Your task to perform on an android device: delete location history Image 0: 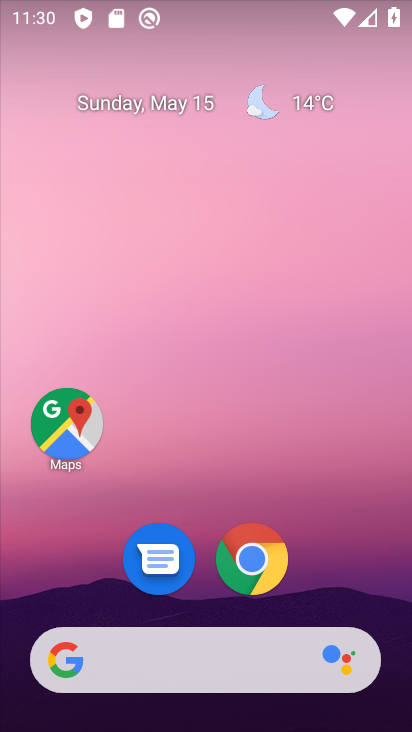
Step 0: drag from (309, 570) to (322, 123)
Your task to perform on an android device: delete location history Image 1: 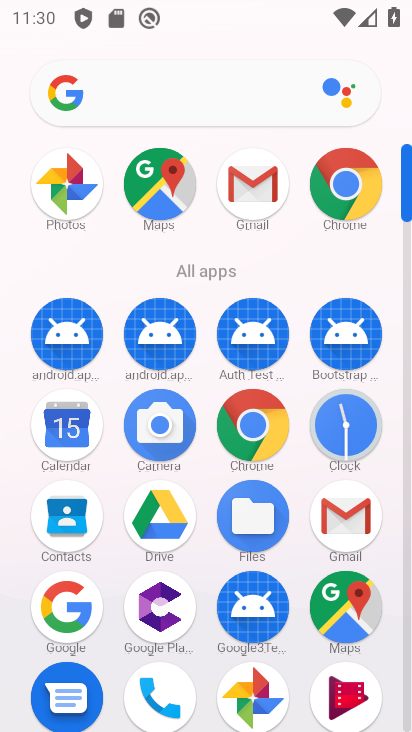
Step 1: drag from (189, 553) to (241, 242)
Your task to perform on an android device: delete location history Image 2: 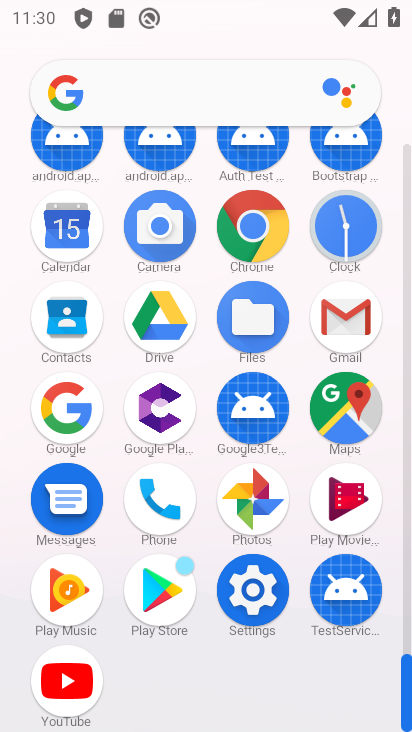
Step 2: click (251, 613)
Your task to perform on an android device: delete location history Image 3: 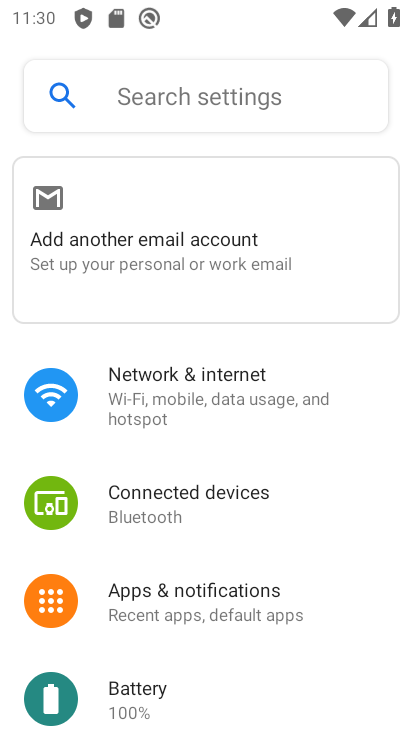
Step 3: drag from (361, 616) to (408, 338)
Your task to perform on an android device: delete location history Image 4: 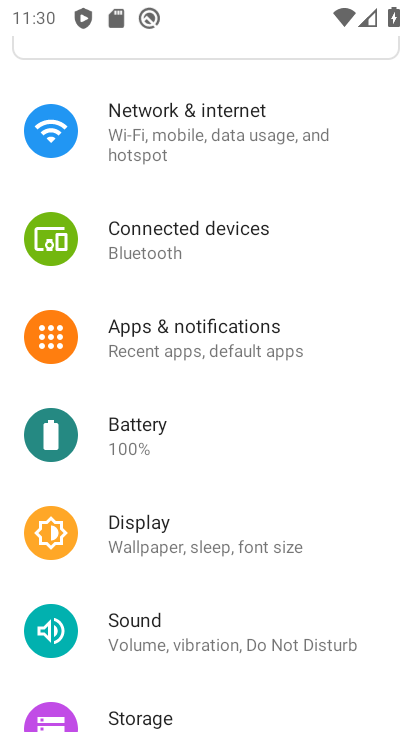
Step 4: drag from (297, 570) to (326, 227)
Your task to perform on an android device: delete location history Image 5: 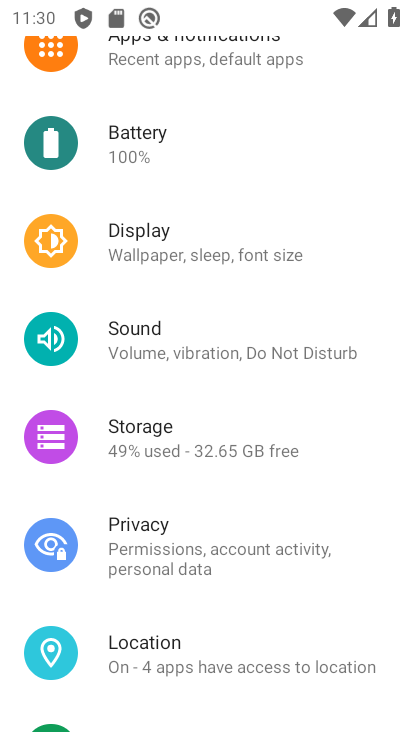
Step 5: click (216, 652)
Your task to perform on an android device: delete location history Image 6: 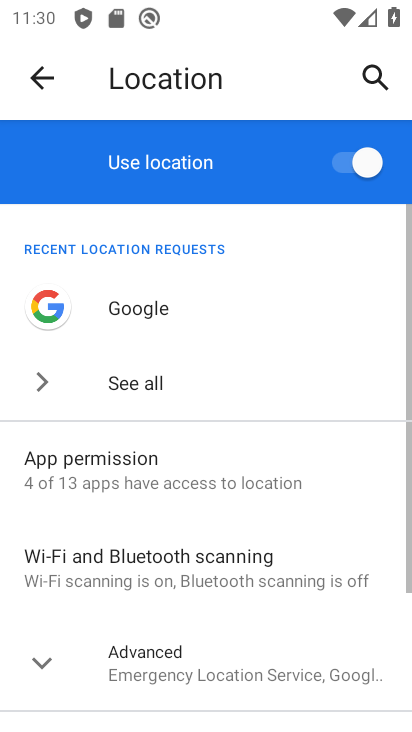
Step 6: click (227, 667)
Your task to perform on an android device: delete location history Image 7: 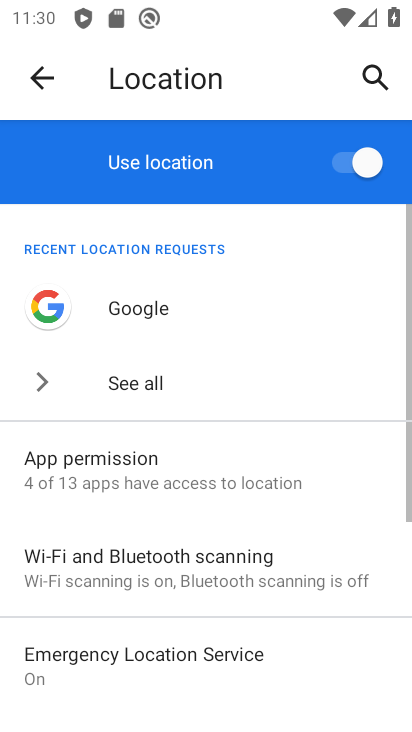
Step 7: drag from (337, 673) to (344, 360)
Your task to perform on an android device: delete location history Image 8: 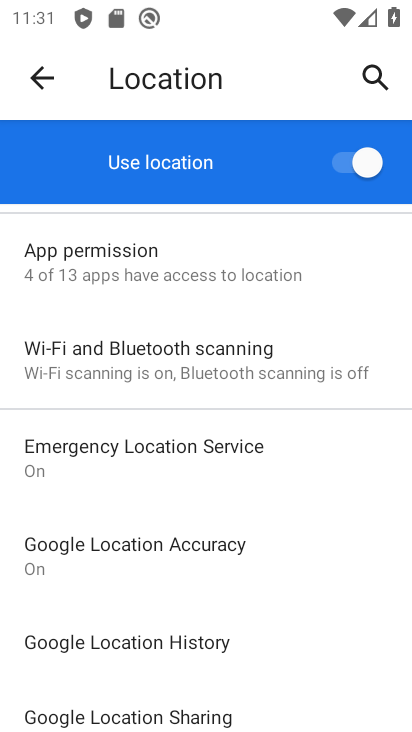
Step 8: click (180, 643)
Your task to perform on an android device: delete location history Image 9: 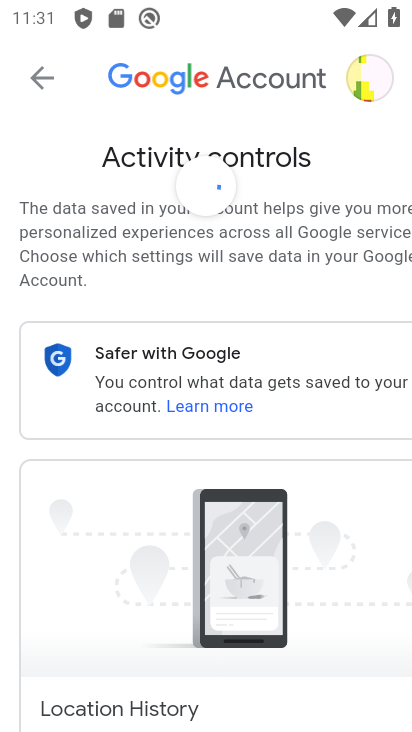
Step 9: drag from (353, 672) to (355, 312)
Your task to perform on an android device: delete location history Image 10: 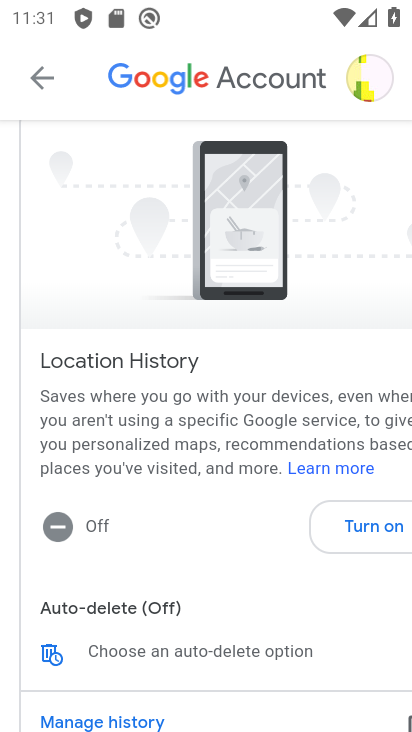
Step 10: drag from (213, 629) to (295, 287)
Your task to perform on an android device: delete location history Image 11: 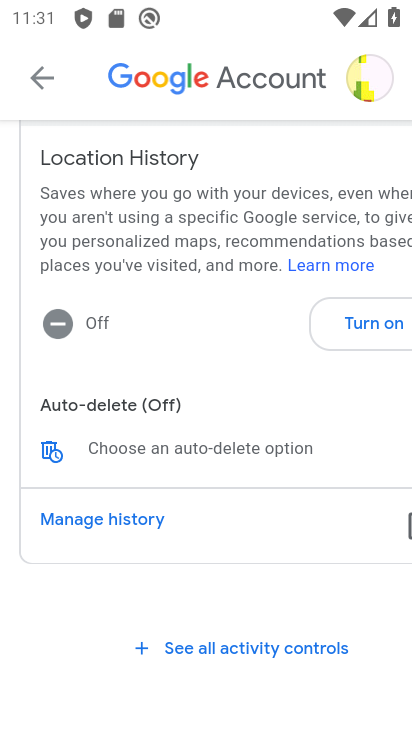
Step 11: click (137, 531)
Your task to perform on an android device: delete location history Image 12: 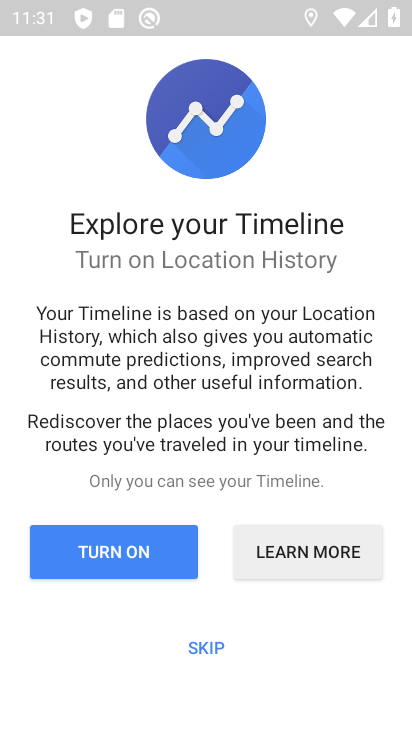
Step 12: click (217, 655)
Your task to perform on an android device: delete location history Image 13: 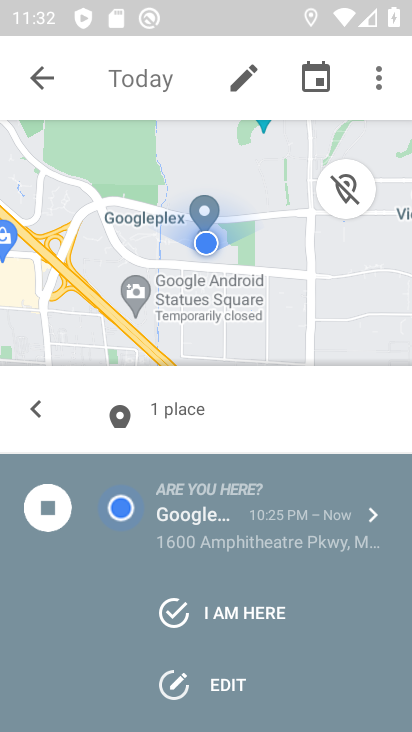
Step 13: drag from (371, 90) to (268, 518)
Your task to perform on an android device: delete location history Image 14: 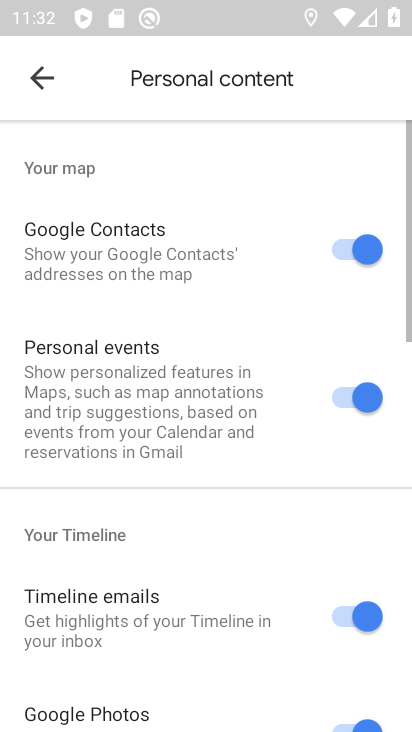
Step 14: drag from (227, 652) to (215, 344)
Your task to perform on an android device: delete location history Image 15: 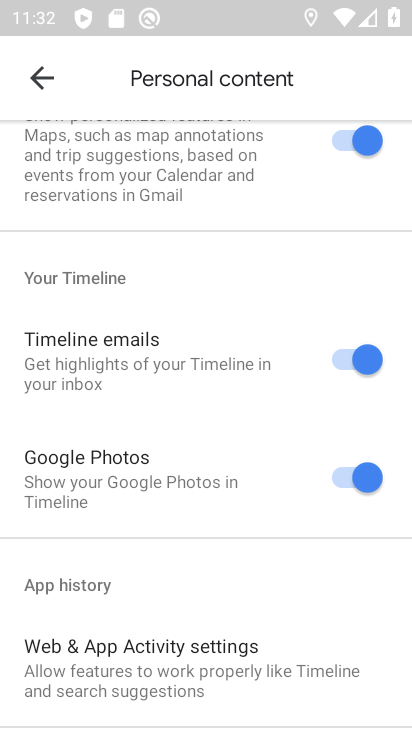
Step 15: drag from (207, 638) to (239, 314)
Your task to perform on an android device: delete location history Image 16: 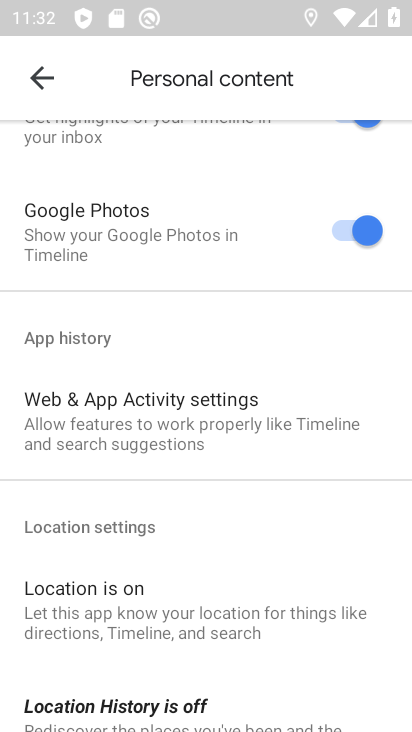
Step 16: drag from (248, 639) to (241, 364)
Your task to perform on an android device: delete location history Image 17: 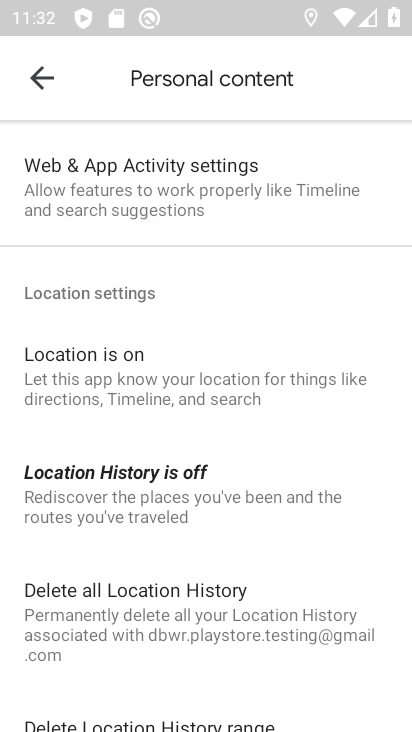
Step 17: drag from (229, 619) to (227, 336)
Your task to perform on an android device: delete location history Image 18: 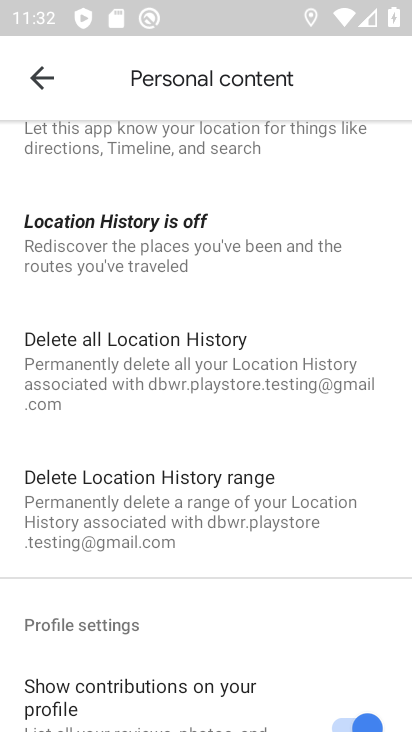
Step 18: drag from (270, 587) to (280, 327)
Your task to perform on an android device: delete location history Image 19: 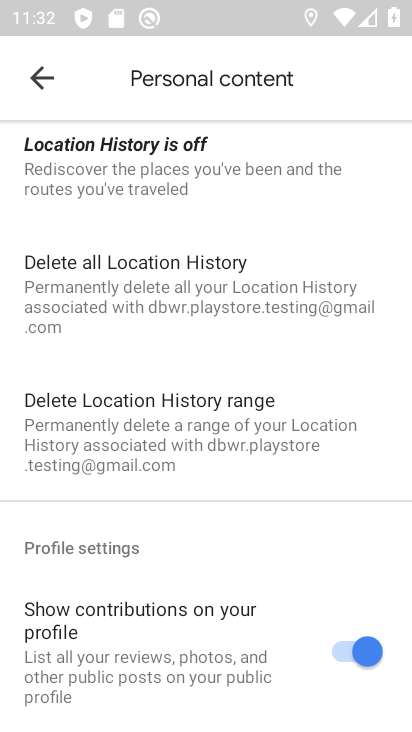
Step 19: click (180, 293)
Your task to perform on an android device: delete location history Image 20: 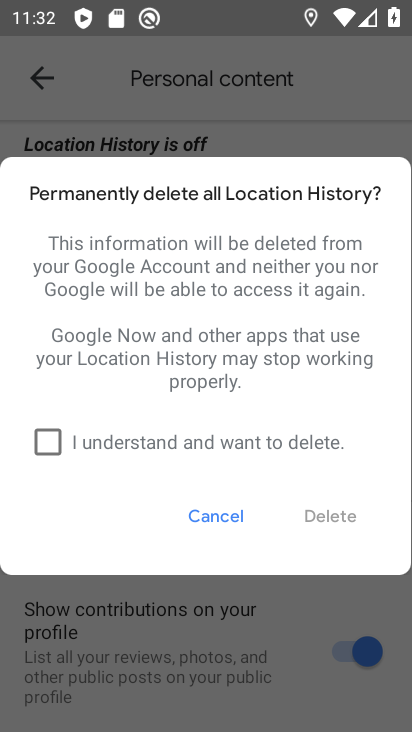
Step 20: click (42, 440)
Your task to perform on an android device: delete location history Image 21: 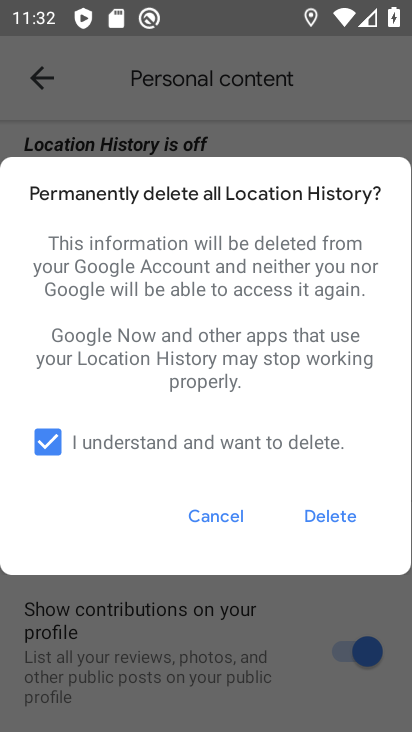
Step 21: click (334, 517)
Your task to perform on an android device: delete location history Image 22: 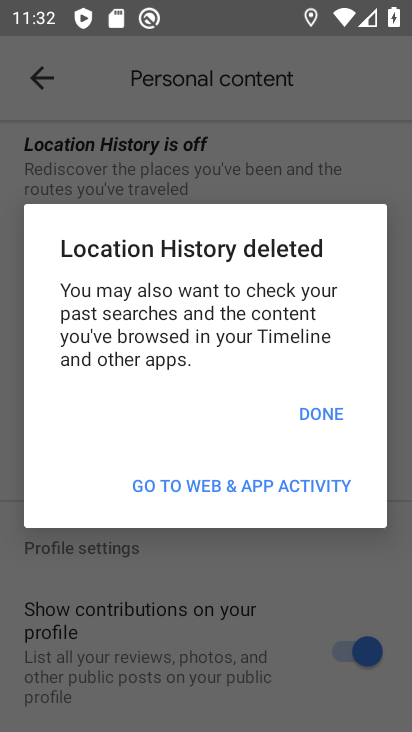
Step 22: click (334, 417)
Your task to perform on an android device: delete location history Image 23: 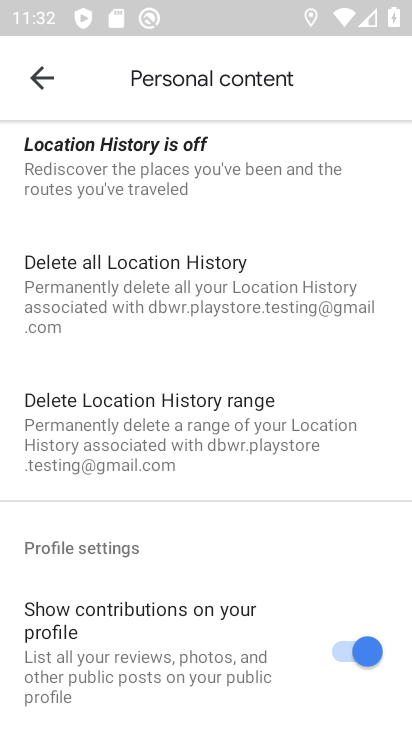
Step 23: task complete